Your task to perform on an android device: open app "Paramount+ | Peak Streaming" Image 0: 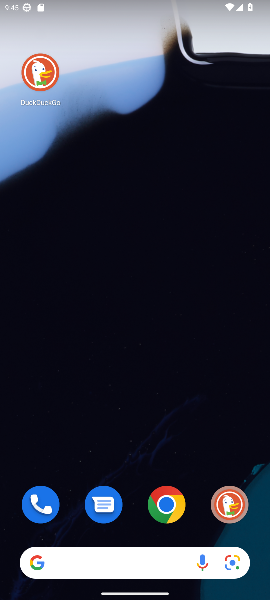
Step 0: drag from (130, 400) to (235, 5)
Your task to perform on an android device: open app "Paramount+ | Peak Streaming" Image 1: 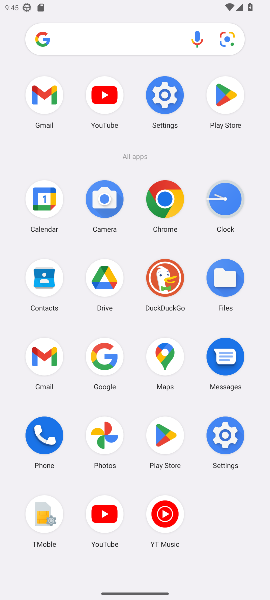
Step 1: click (163, 428)
Your task to perform on an android device: open app "Paramount+ | Peak Streaming" Image 2: 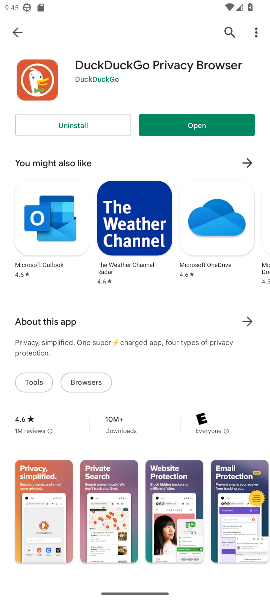
Step 2: click (229, 33)
Your task to perform on an android device: open app "Paramount+ | Peak Streaming" Image 3: 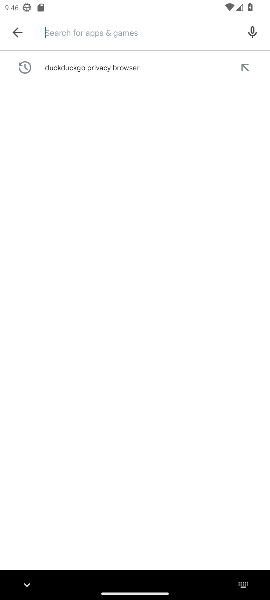
Step 3: type "paramount+ peak streamiing "
Your task to perform on an android device: open app "Paramount+ | Peak Streaming" Image 4: 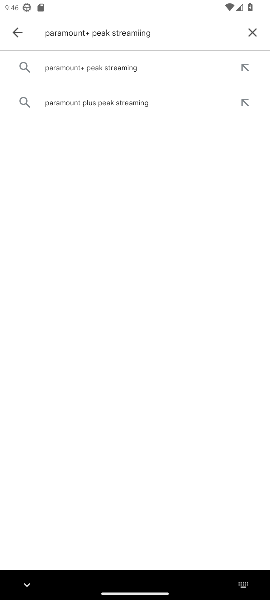
Step 4: click (116, 73)
Your task to perform on an android device: open app "Paramount+ | Peak Streaming" Image 5: 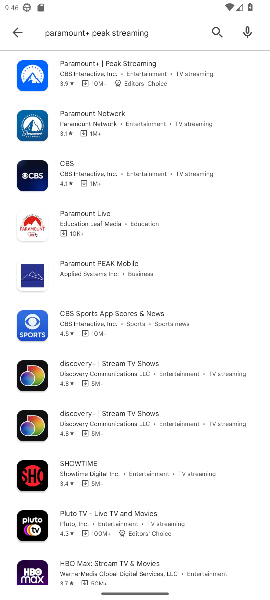
Step 5: click (116, 73)
Your task to perform on an android device: open app "Paramount+ | Peak Streaming" Image 6: 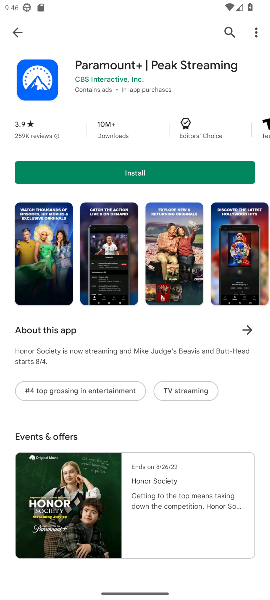
Step 6: task complete